Your task to perform on an android device: turn off picture-in-picture Image 0: 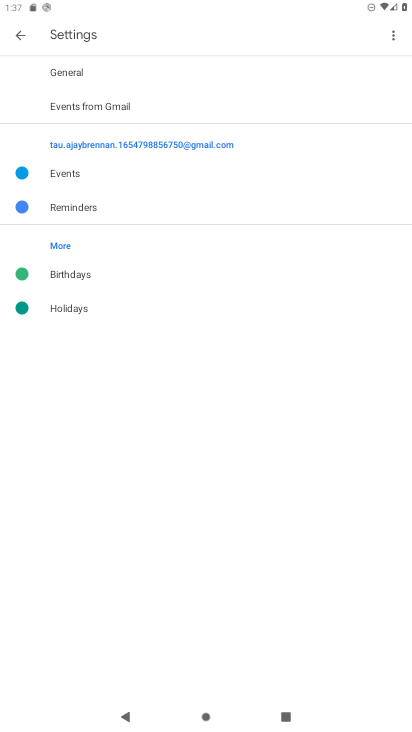
Step 0: press home button
Your task to perform on an android device: turn off picture-in-picture Image 1: 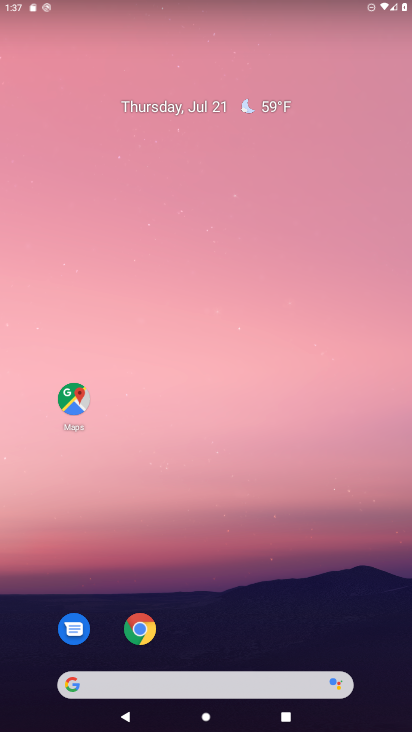
Step 1: drag from (375, 636) to (374, 54)
Your task to perform on an android device: turn off picture-in-picture Image 2: 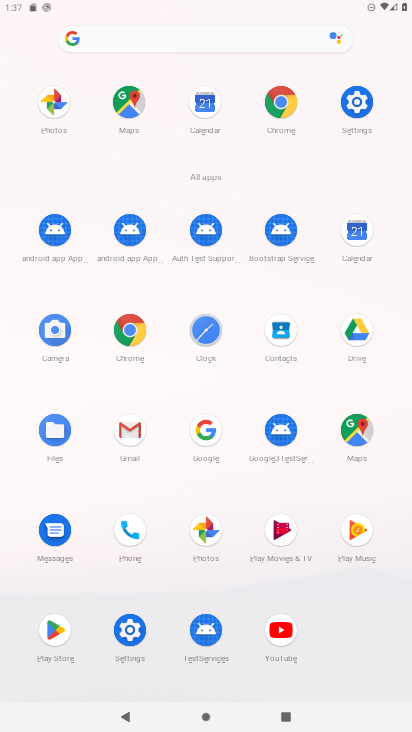
Step 2: click (131, 631)
Your task to perform on an android device: turn off picture-in-picture Image 3: 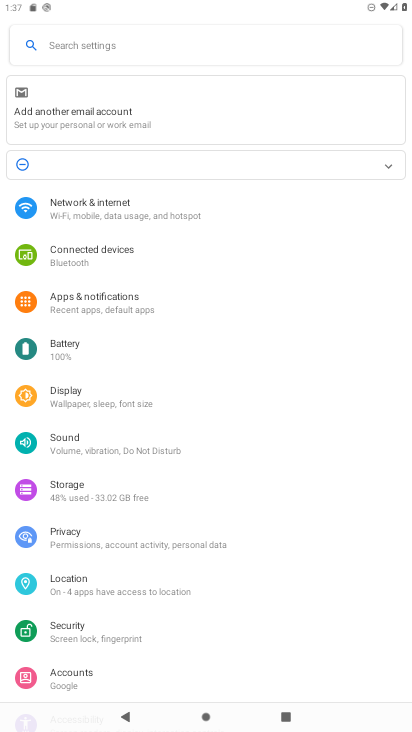
Step 3: click (90, 297)
Your task to perform on an android device: turn off picture-in-picture Image 4: 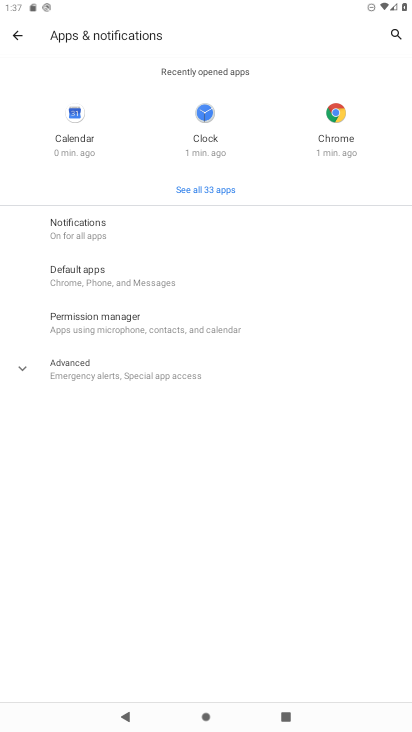
Step 4: click (15, 366)
Your task to perform on an android device: turn off picture-in-picture Image 5: 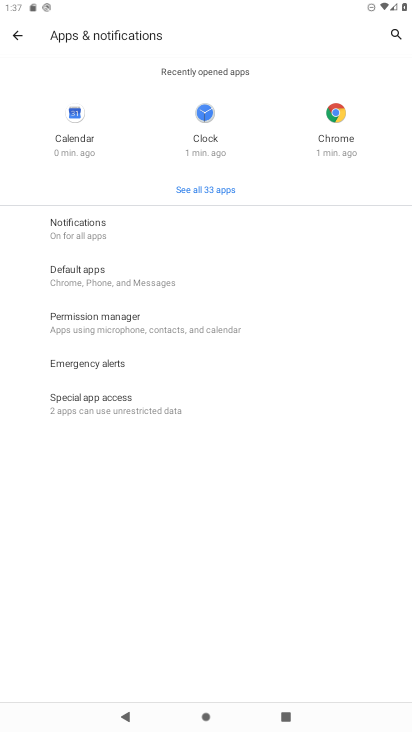
Step 5: click (109, 409)
Your task to perform on an android device: turn off picture-in-picture Image 6: 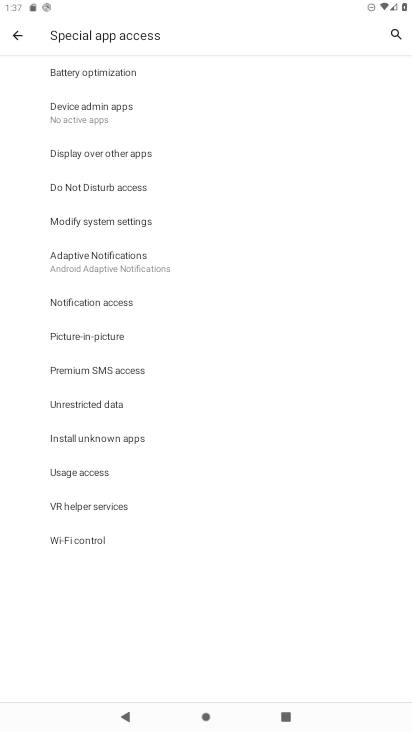
Step 6: click (88, 330)
Your task to perform on an android device: turn off picture-in-picture Image 7: 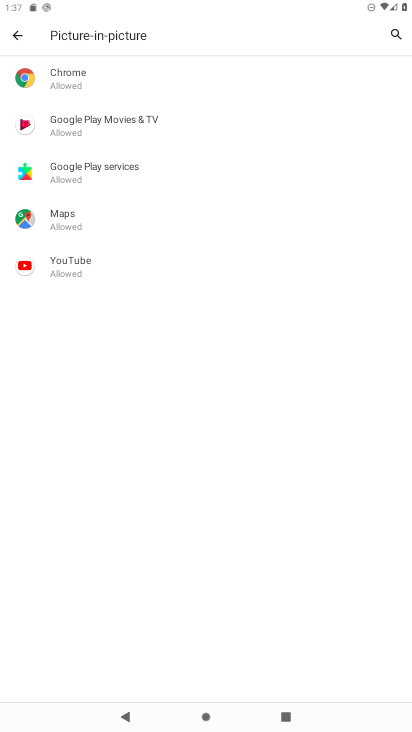
Step 7: click (65, 264)
Your task to perform on an android device: turn off picture-in-picture Image 8: 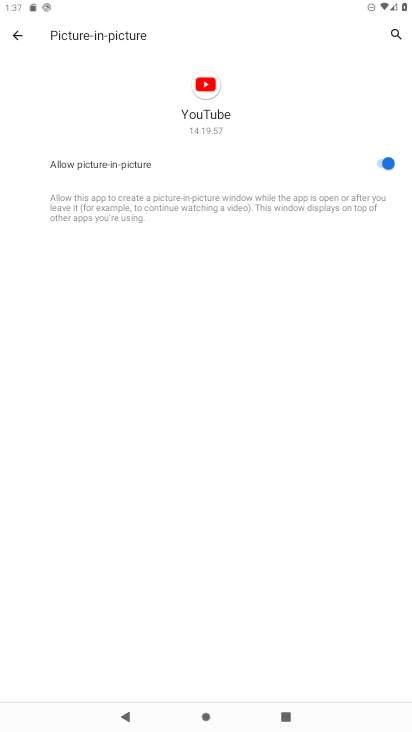
Step 8: click (379, 160)
Your task to perform on an android device: turn off picture-in-picture Image 9: 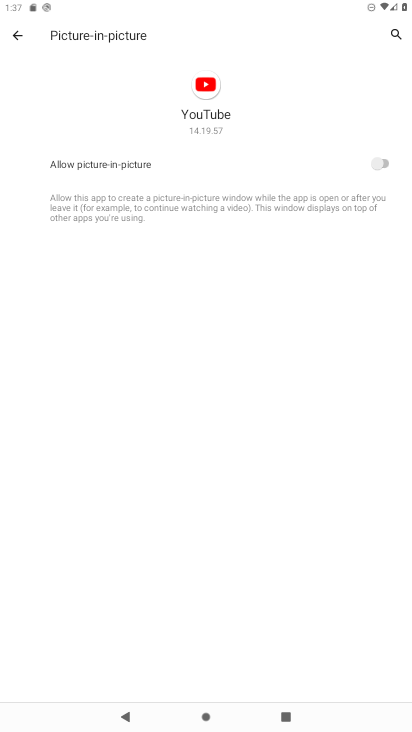
Step 9: task complete